Your task to perform on an android device: turn off notifications in google photos Image 0: 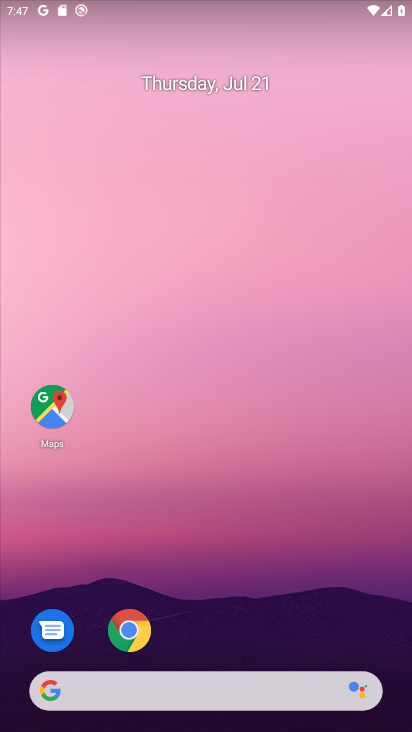
Step 0: drag from (194, 644) to (283, 54)
Your task to perform on an android device: turn off notifications in google photos Image 1: 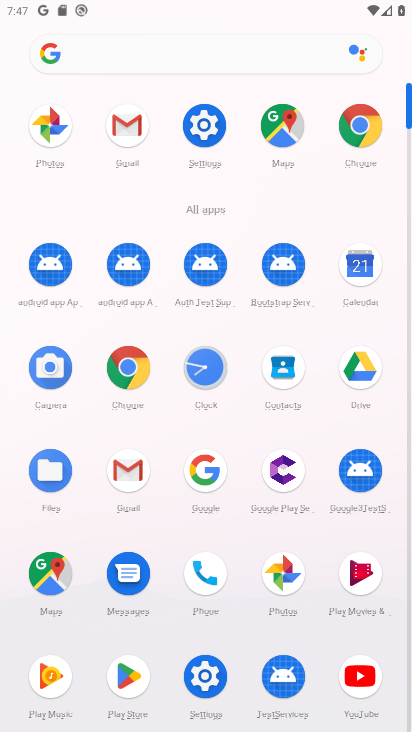
Step 1: click (298, 578)
Your task to perform on an android device: turn off notifications in google photos Image 2: 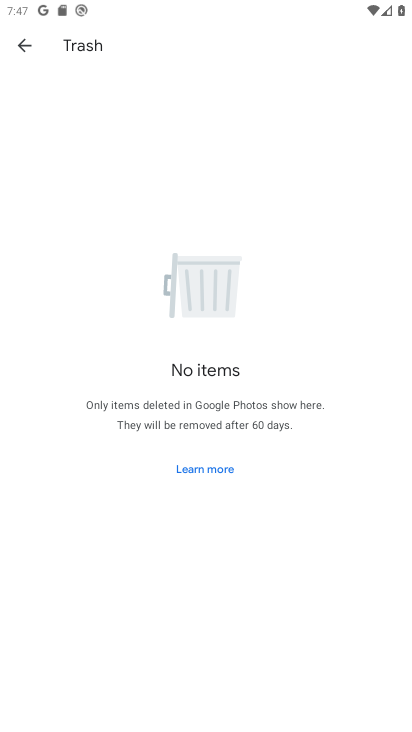
Step 2: click (14, 46)
Your task to perform on an android device: turn off notifications in google photos Image 3: 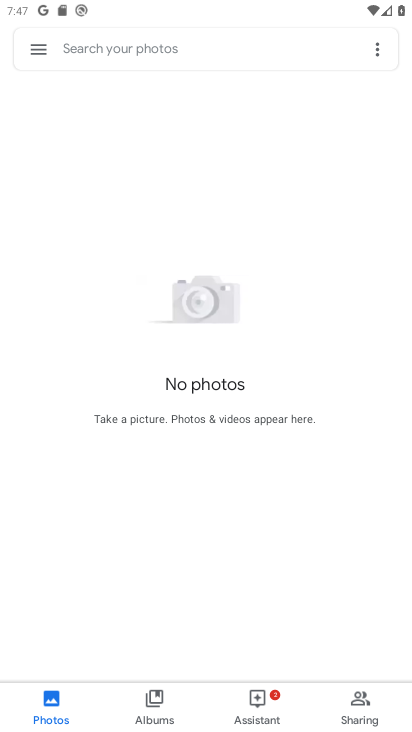
Step 3: click (30, 39)
Your task to perform on an android device: turn off notifications in google photos Image 4: 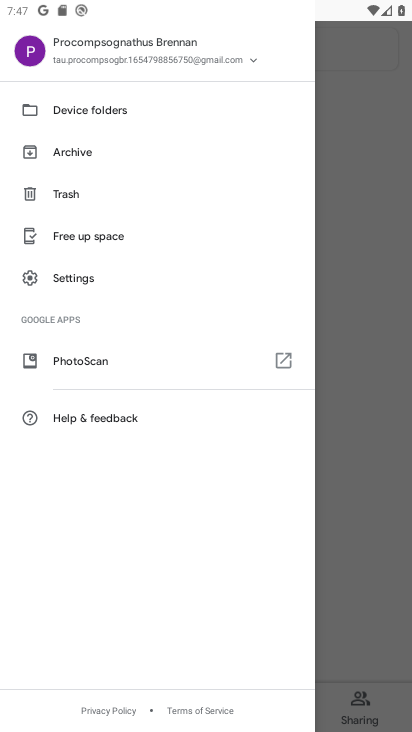
Step 4: click (70, 282)
Your task to perform on an android device: turn off notifications in google photos Image 5: 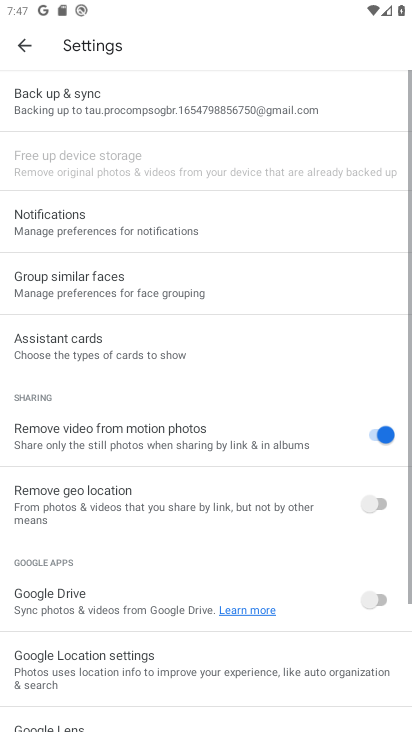
Step 5: click (74, 220)
Your task to perform on an android device: turn off notifications in google photos Image 6: 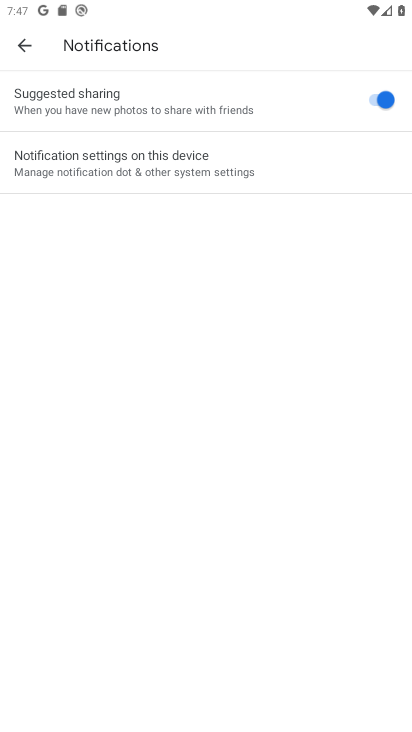
Step 6: click (58, 163)
Your task to perform on an android device: turn off notifications in google photos Image 7: 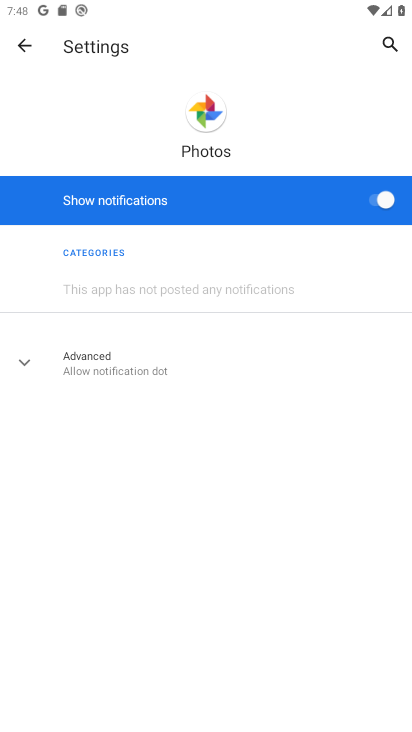
Step 7: click (372, 198)
Your task to perform on an android device: turn off notifications in google photos Image 8: 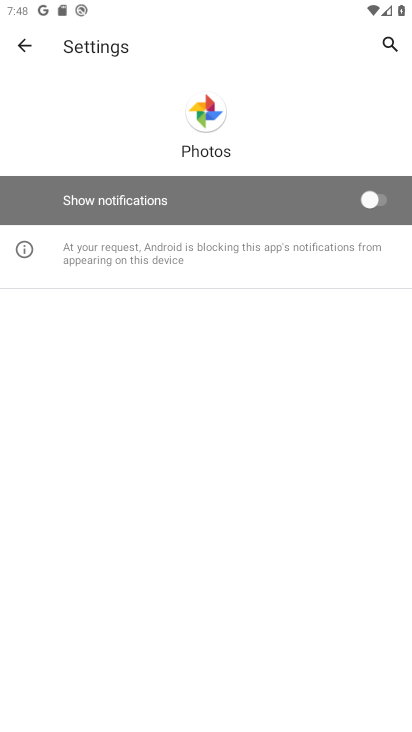
Step 8: task complete